Your task to perform on an android device: open chrome and create a bookmark for the current page Image 0: 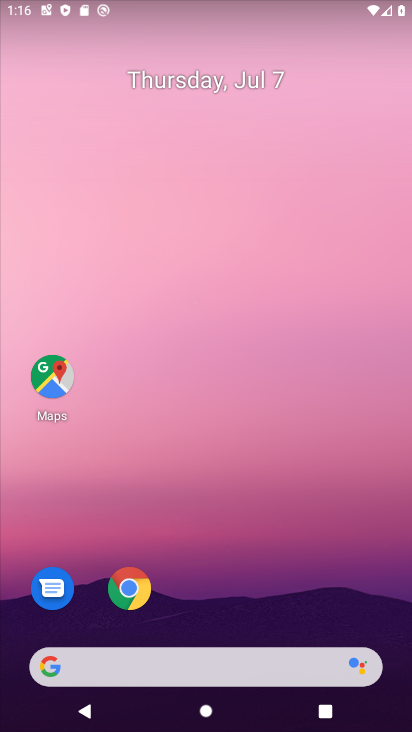
Step 0: drag from (244, 608) to (251, 133)
Your task to perform on an android device: open chrome and create a bookmark for the current page Image 1: 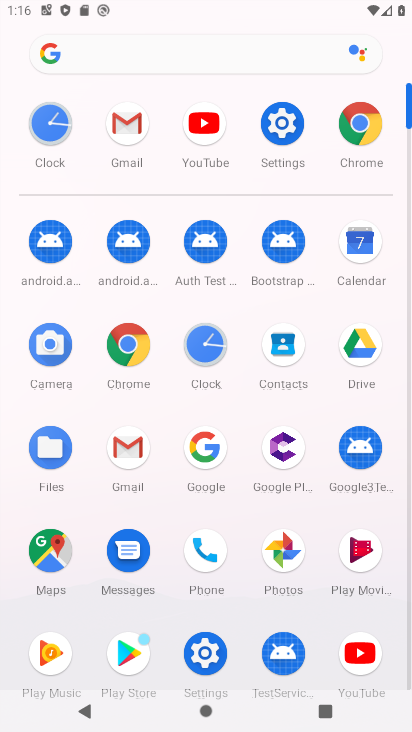
Step 1: click (113, 324)
Your task to perform on an android device: open chrome and create a bookmark for the current page Image 2: 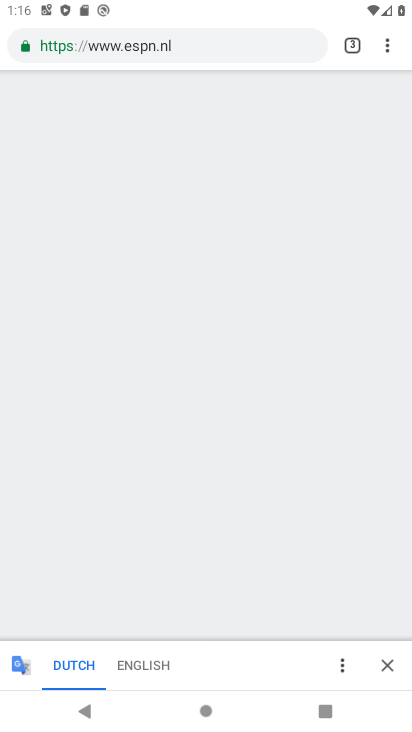
Step 2: click (398, 53)
Your task to perform on an android device: open chrome and create a bookmark for the current page Image 3: 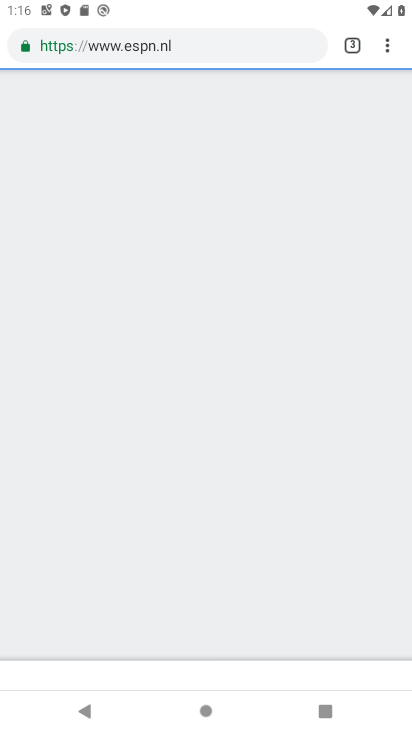
Step 3: click (393, 43)
Your task to perform on an android device: open chrome and create a bookmark for the current page Image 4: 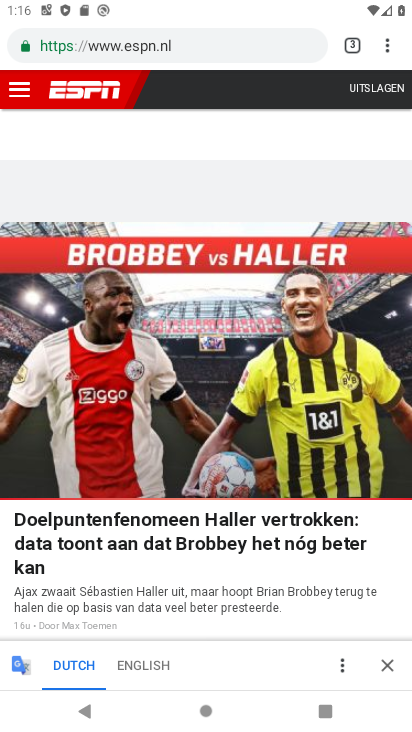
Step 4: click (393, 43)
Your task to perform on an android device: open chrome and create a bookmark for the current page Image 5: 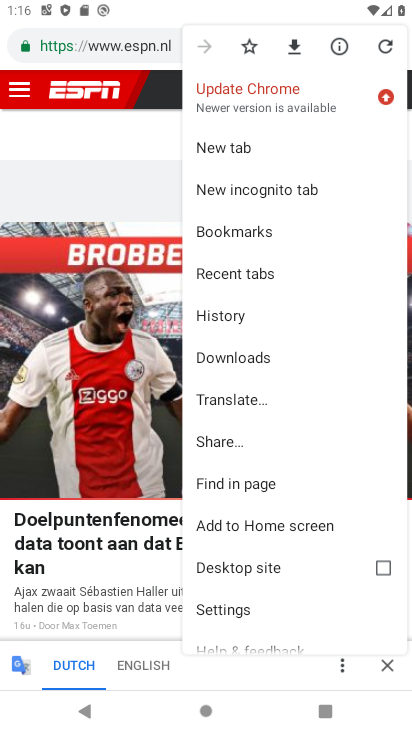
Step 5: click (249, 237)
Your task to perform on an android device: open chrome and create a bookmark for the current page Image 6: 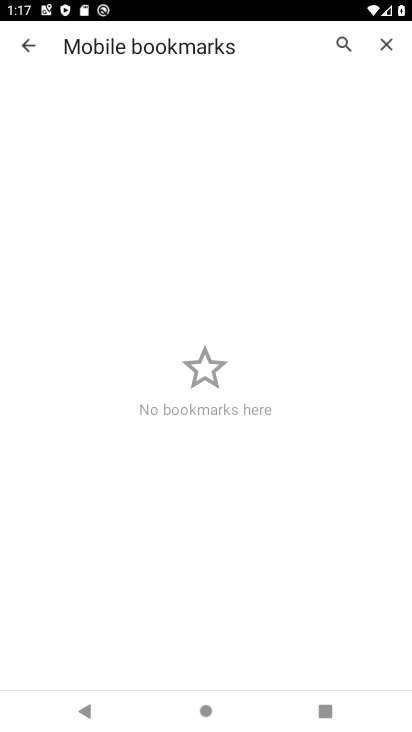
Step 6: task complete